Your task to perform on an android device: check google app version Image 0: 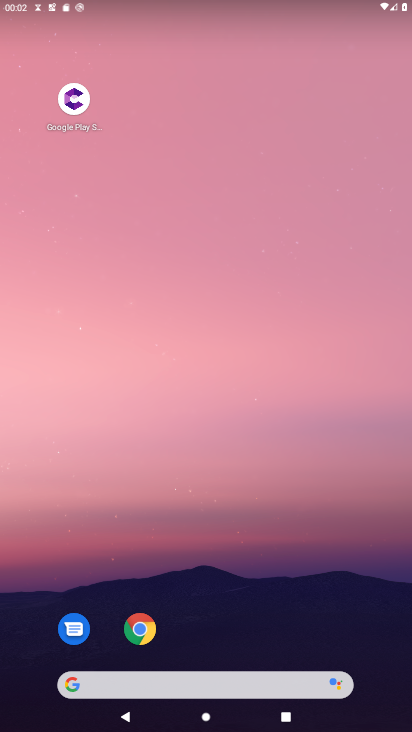
Step 0: drag from (258, 635) to (238, 96)
Your task to perform on an android device: check google app version Image 1: 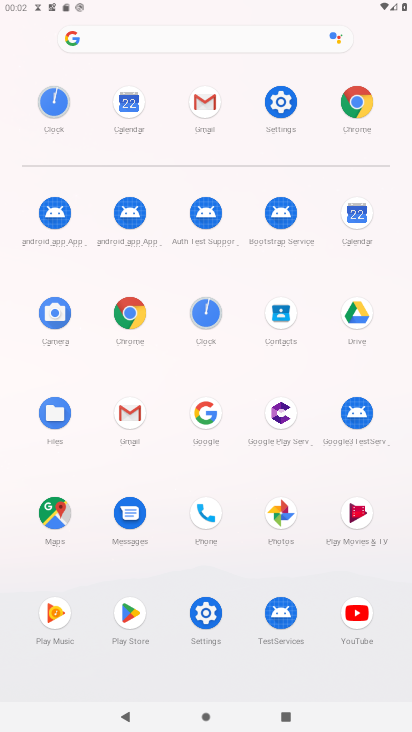
Step 1: click (208, 398)
Your task to perform on an android device: check google app version Image 2: 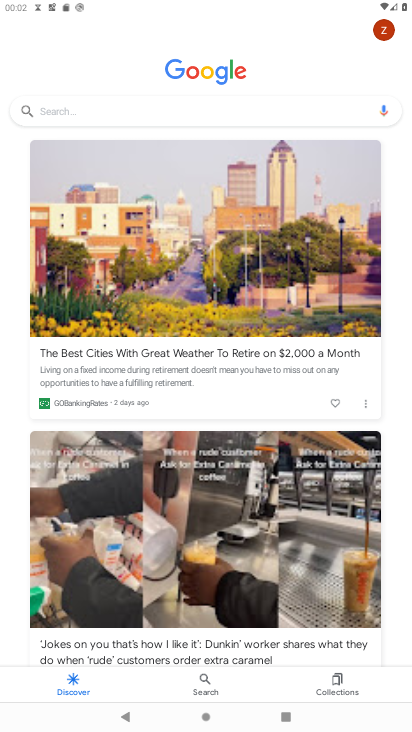
Step 2: click (385, 17)
Your task to perform on an android device: check google app version Image 3: 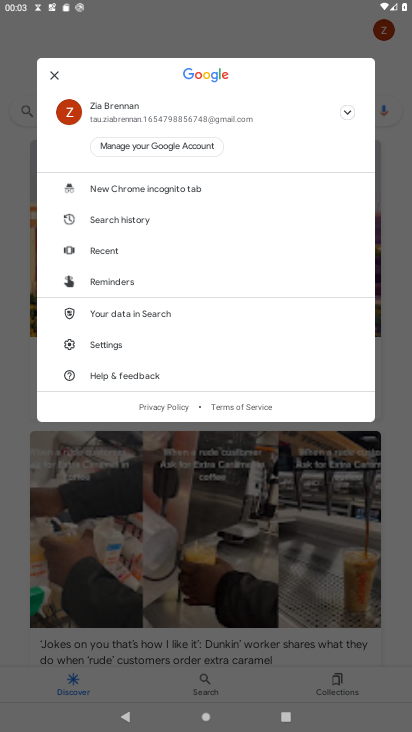
Step 3: click (114, 343)
Your task to perform on an android device: check google app version Image 4: 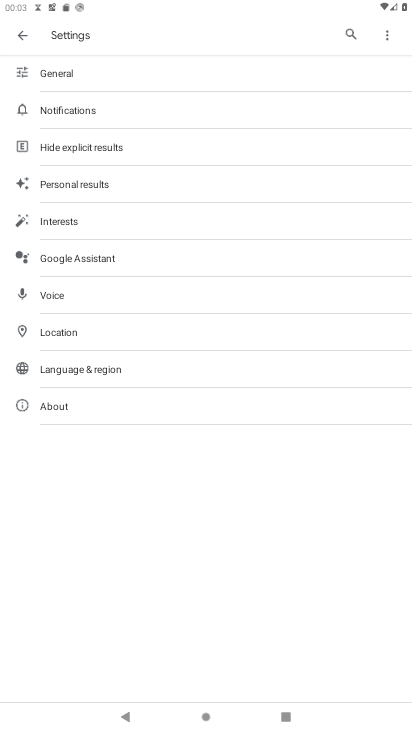
Step 4: click (98, 403)
Your task to perform on an android device: check google app version Image 5: 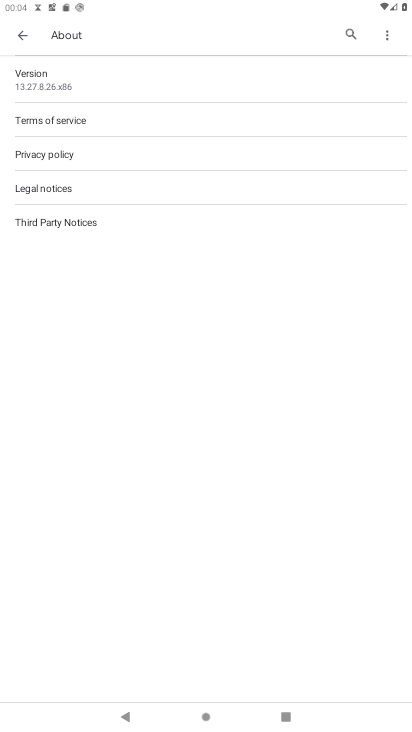
Step 5: task complete